Your task to perform on an android device: add a contact Image 0: 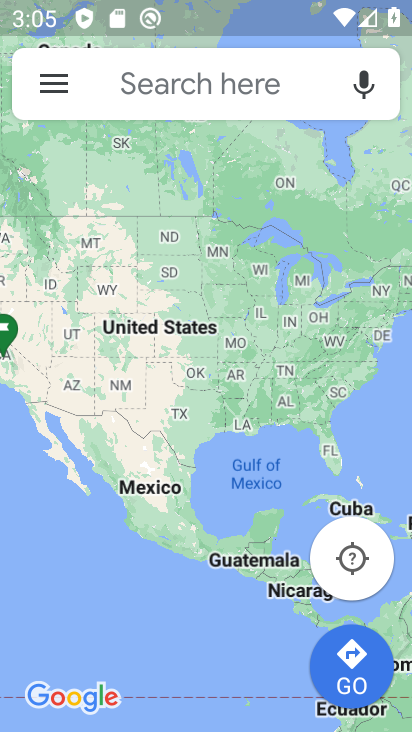
Step 0: press home button
Your task to perform on an android device: add a contact Image 1: 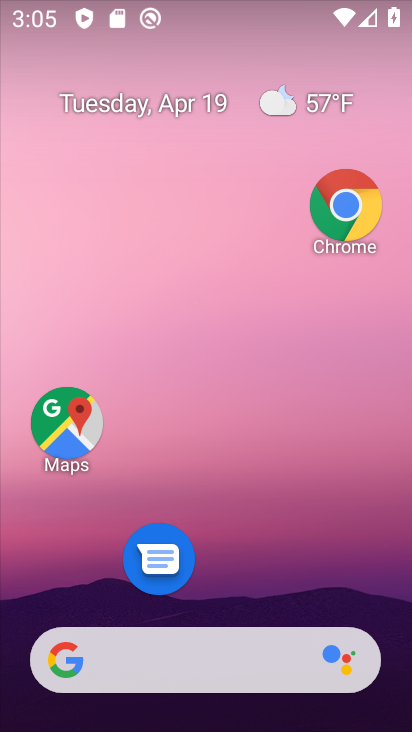
Step 1: drag from (227, 581) to (289, 132)
Your task to perform on an android device: add a contact Image 2: 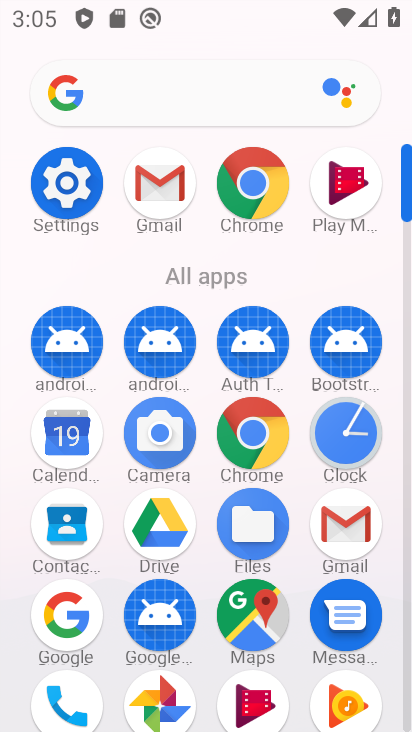
Step 2: drag from (213, 660) to (246, 305)
Your task to perform on an android device: add a contact Image 3: 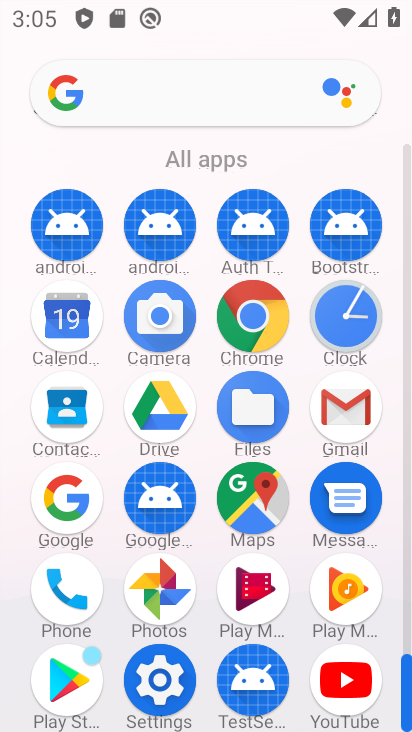
Step 3: click (62, 405)
Your task to perform on an android device: add a contact Image 4: 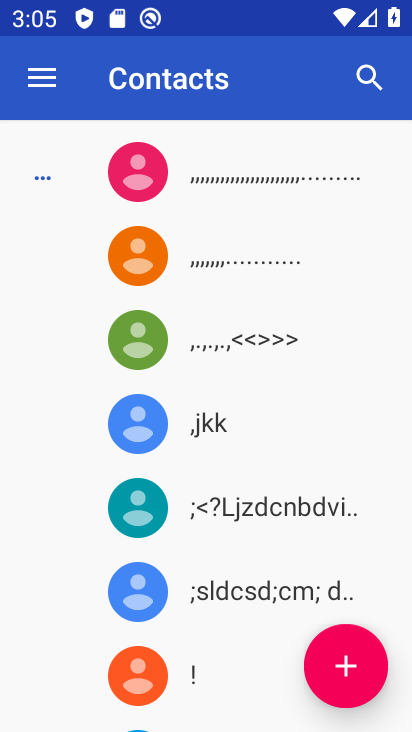
Step 4: click (336, 665)
Your task to perform on an android device: add a contact Image 5: 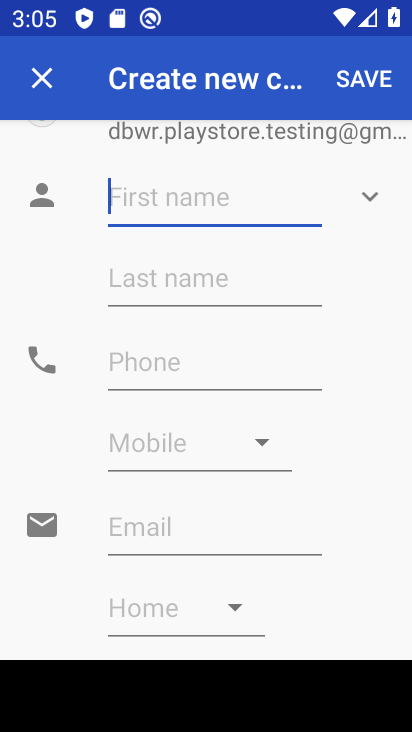
Step 5: type "tt"
Your task to perform on an android device: add a contact Image 6: 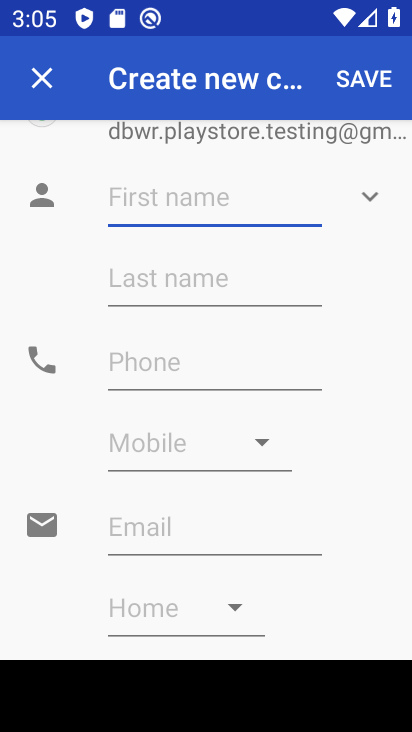
Step 6: click (214, 287)
Your task to perform on an android device: add a contact Image 7: 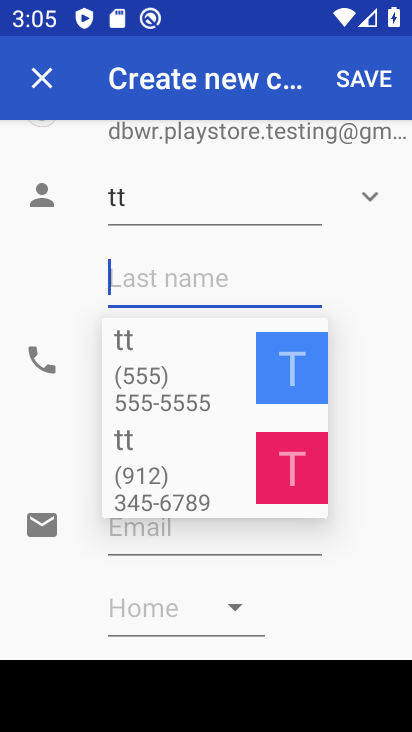
Step 7: type "nhj"
Your task to perform on an android device: add a contact Image 8: 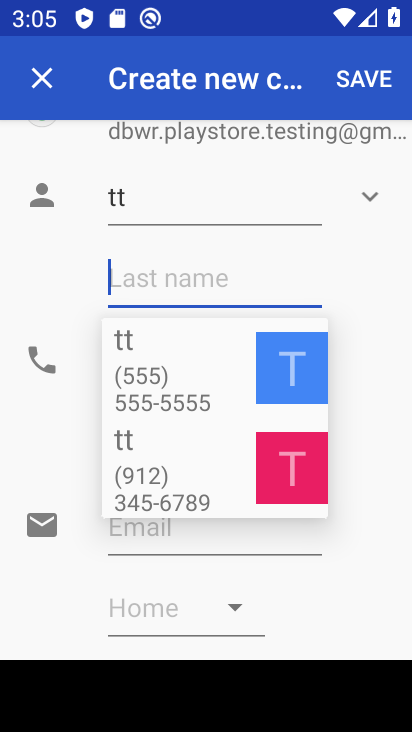
Step 8: click (161, 534)
Your task to perform on an android device: add a contact Image 9: 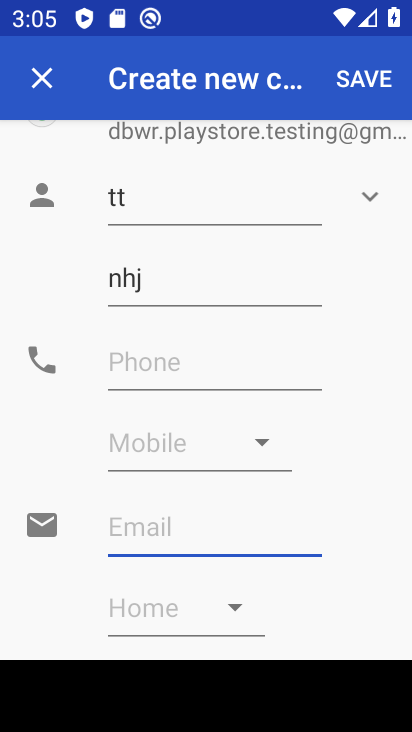
Step 9: click (169, 369)
Your task to perform on an android device: add a contact Image 10: 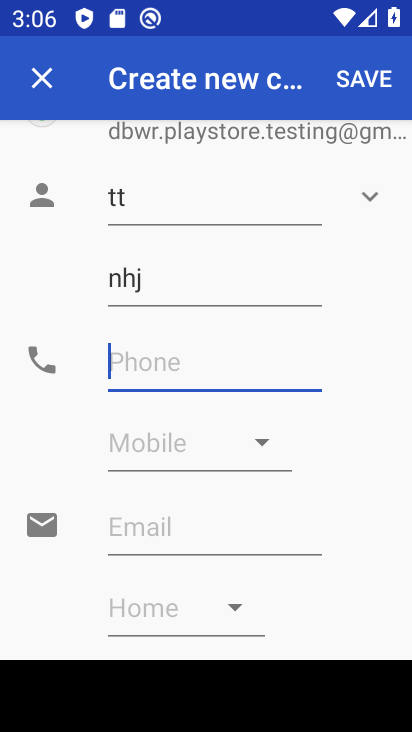
Step 10: type "675788786"
Your task to perform on an android device: add a contact Image 11: 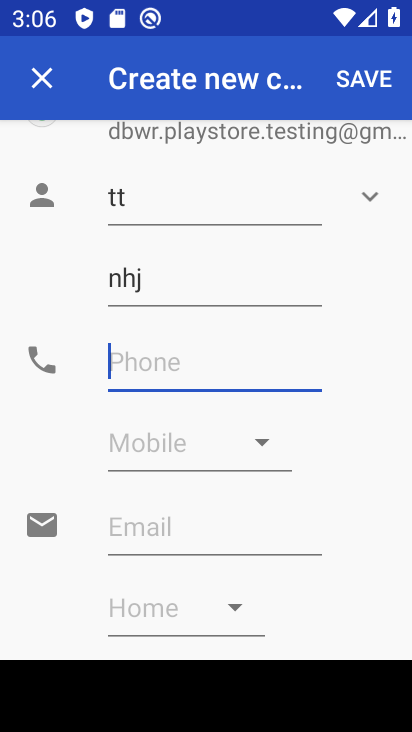
Step 11: click (148, 466)
Your task to perform on an android device: add a contact Image 12: 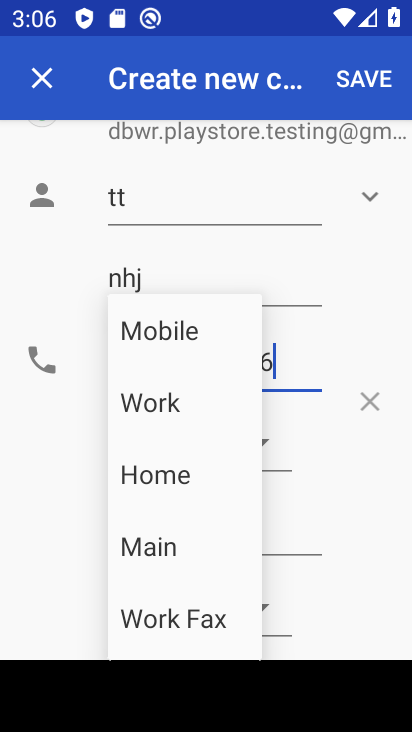
Step 12: click (370, 80)
Your task to perform on an android device: add a contact Image 13: 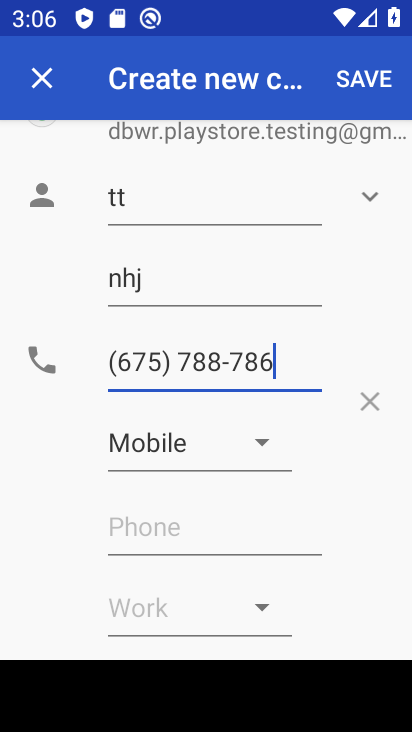
Step 13: click (371, 84)
Your task to perform on an android device: add a contact Image 14: 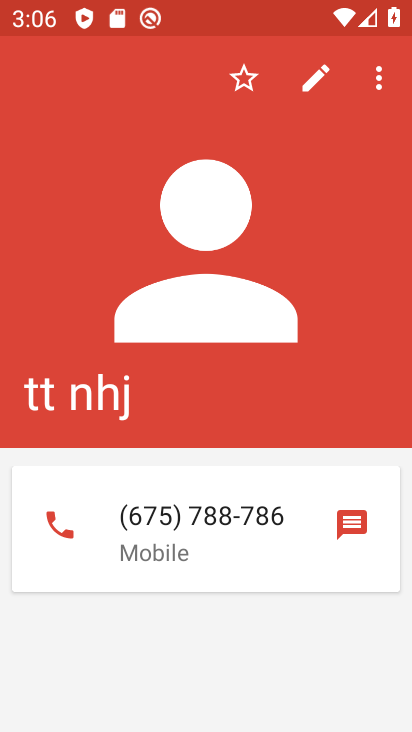
Step 14: task complete